Your task to perform on an android device: Open CNN.com Image 0: 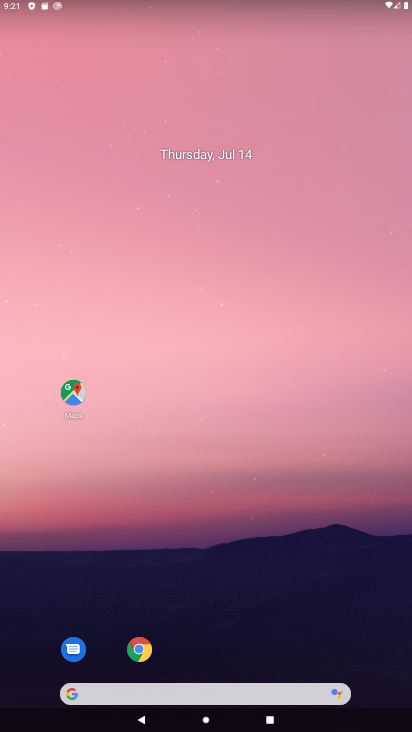
Step 0: click (138, 655)
Your task to perform on an android device: Open CNN.com Image 1: 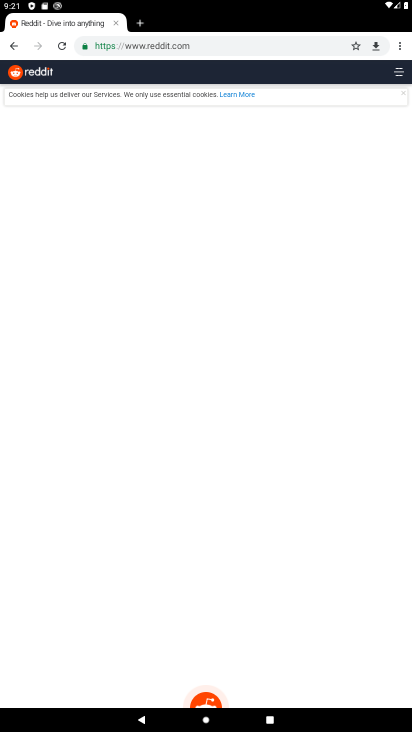
Step 1: click (169, 44)
Your task to perform on an android device: Open CNN.com Image 2: 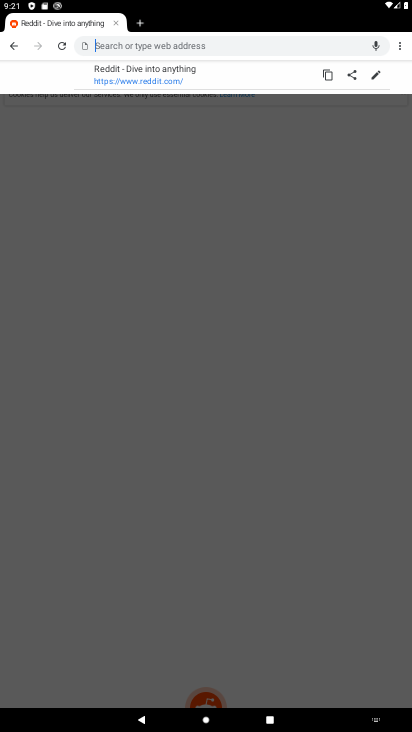
Step 2: type "www.cnn.com"
Your task to perform on an android device: Open CNN.com Image 3: 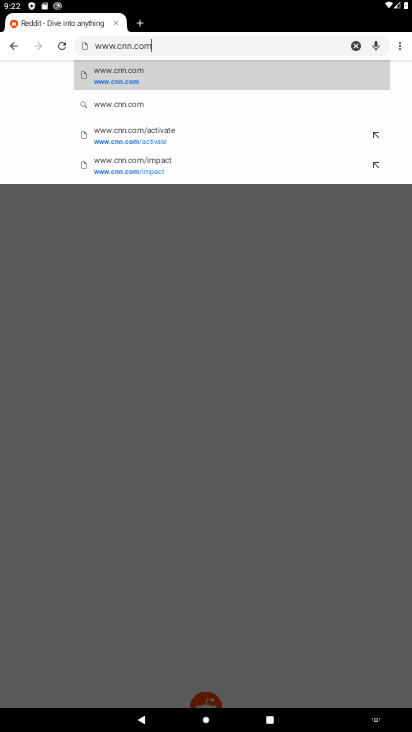
Step 3: click (121, 83)
Your task to perform on an android device: Open CNN.com Image 4: 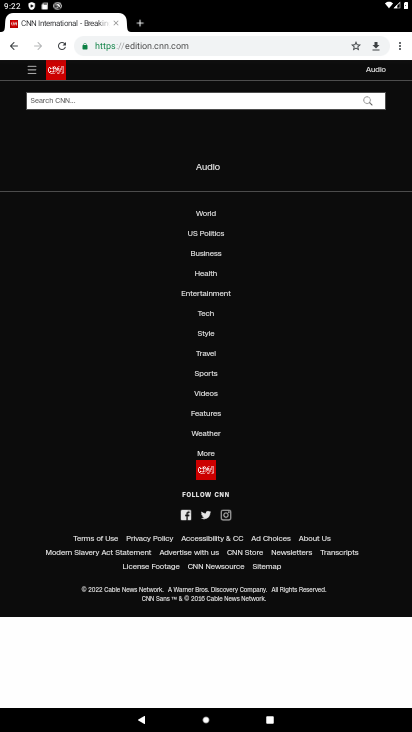
Step 4: task complete